Your task to perform on an android device: Open Chrome and go to the settings page Image 0: 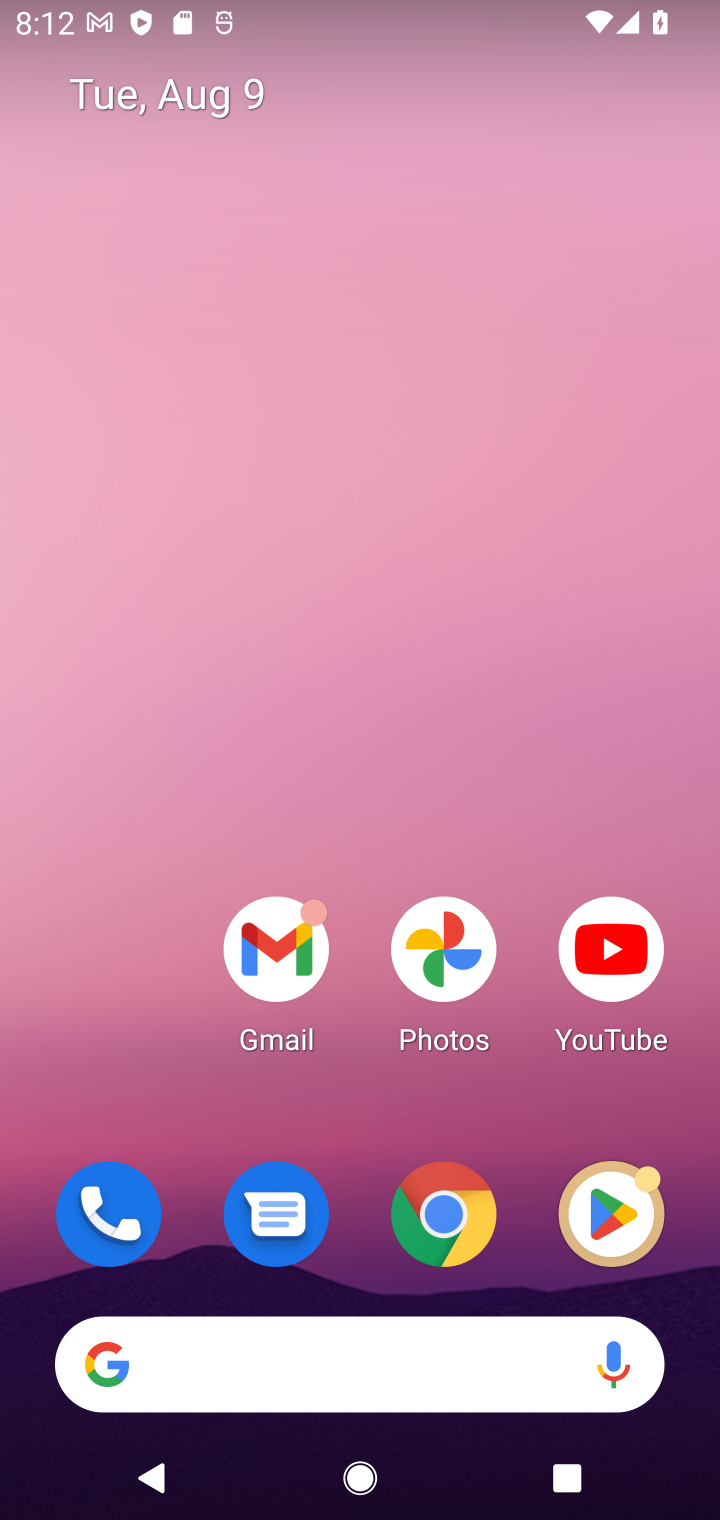
Step 0: drag from (77, 1469) to (716, 176)
Your task to perform on an android device: Open Chrome and go to the settings page Image 1: 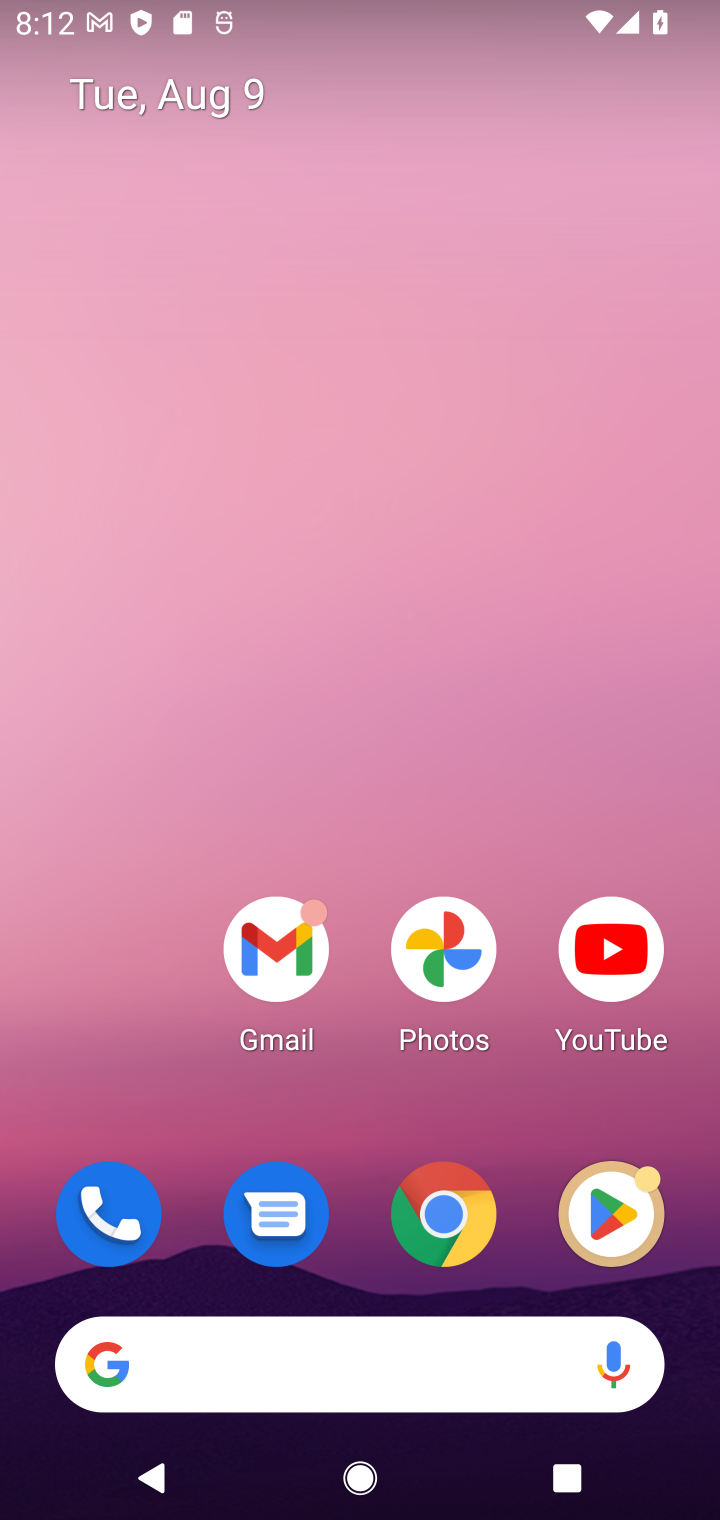
Step 1: click (441, 1230)
Your task to perform on an android device: Open Chrome and go to the settings page Image 2: 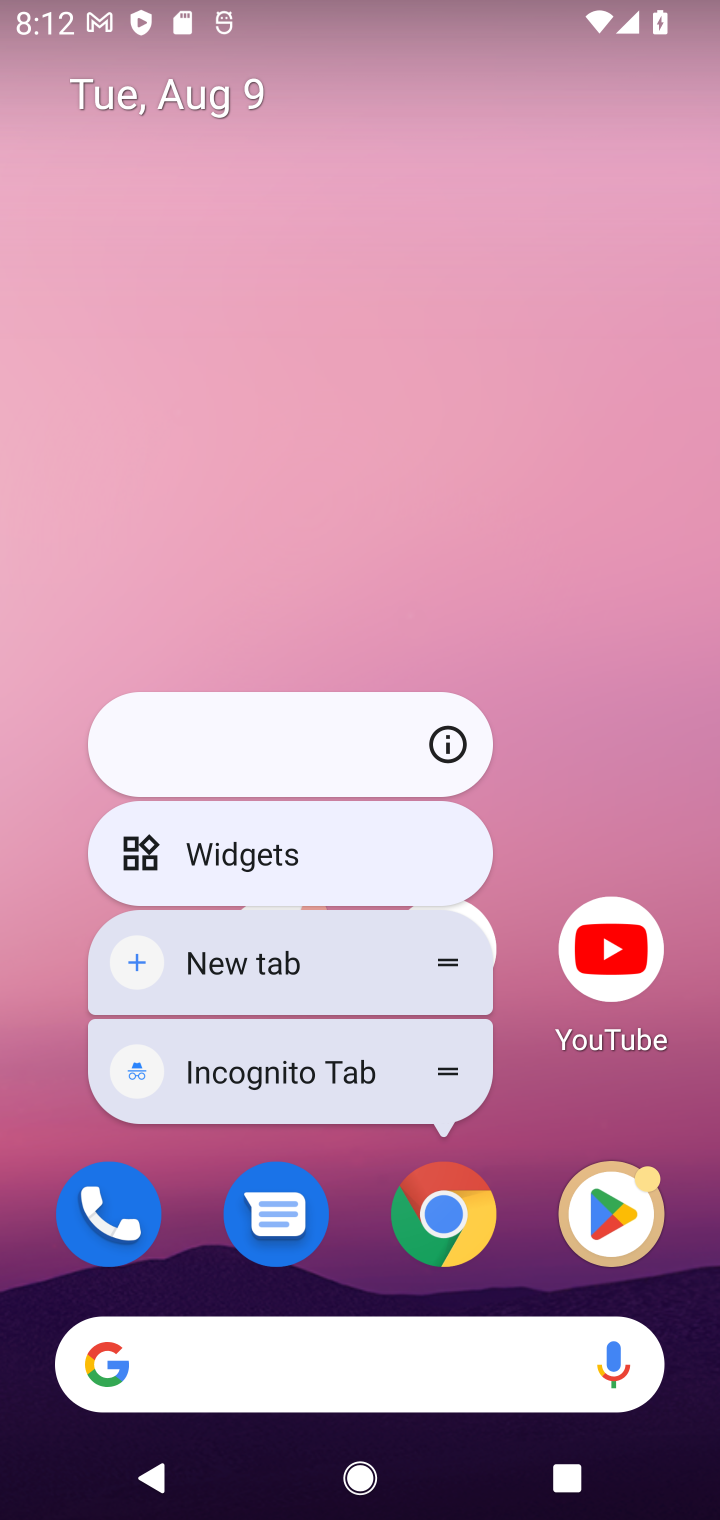
Step 2: click (468, 1192)
Your task to perform on an android device: Open Chrome and go to the settings page Image 3: 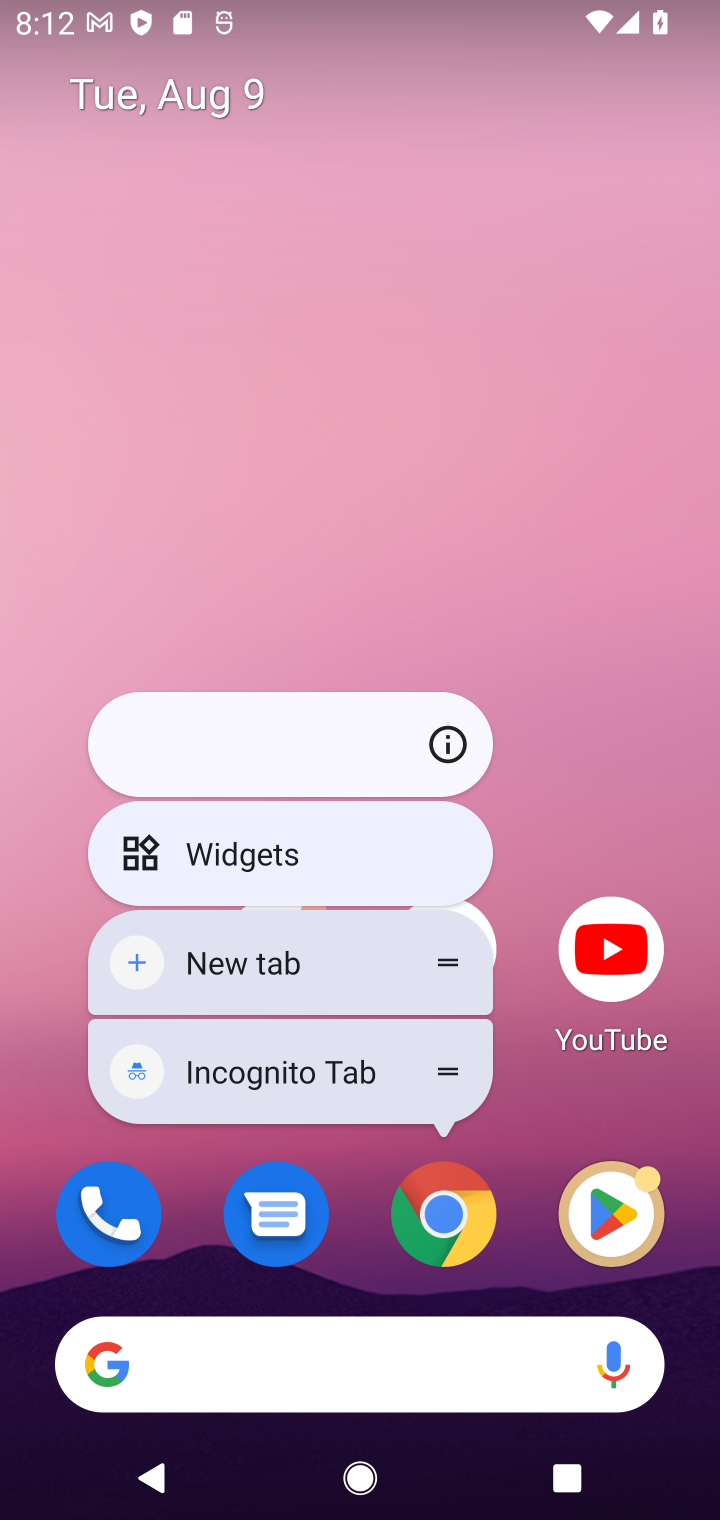
Step 3: task complete